Your task to perform on an android device: What's on the menu at Chipotle? Image 0: 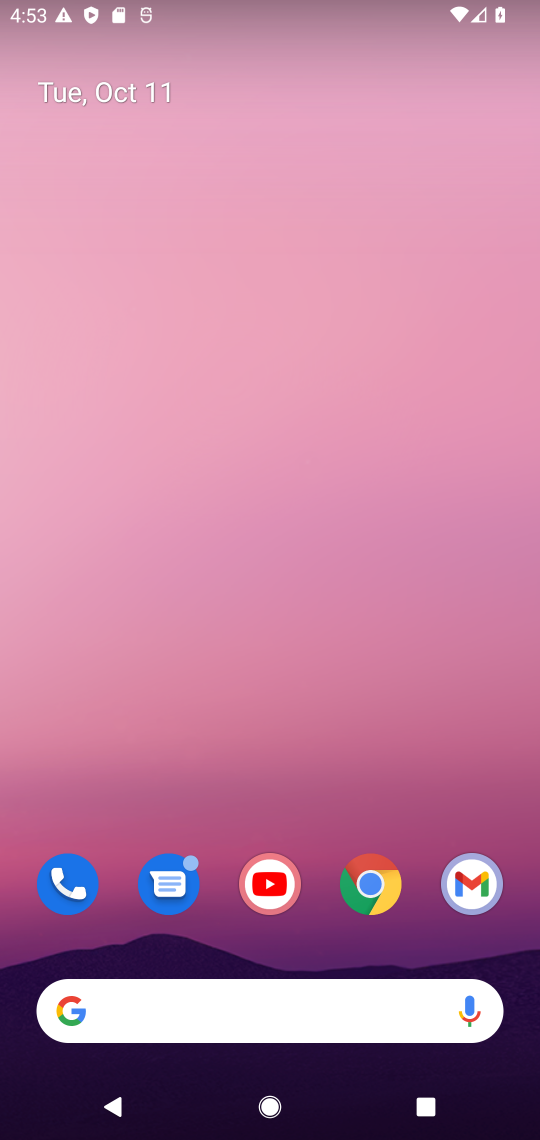
Step 0: drag from (286, 970) to (201, 70)
Your task to perform on an android device: What's on the menu at Chipotle? Image 1: 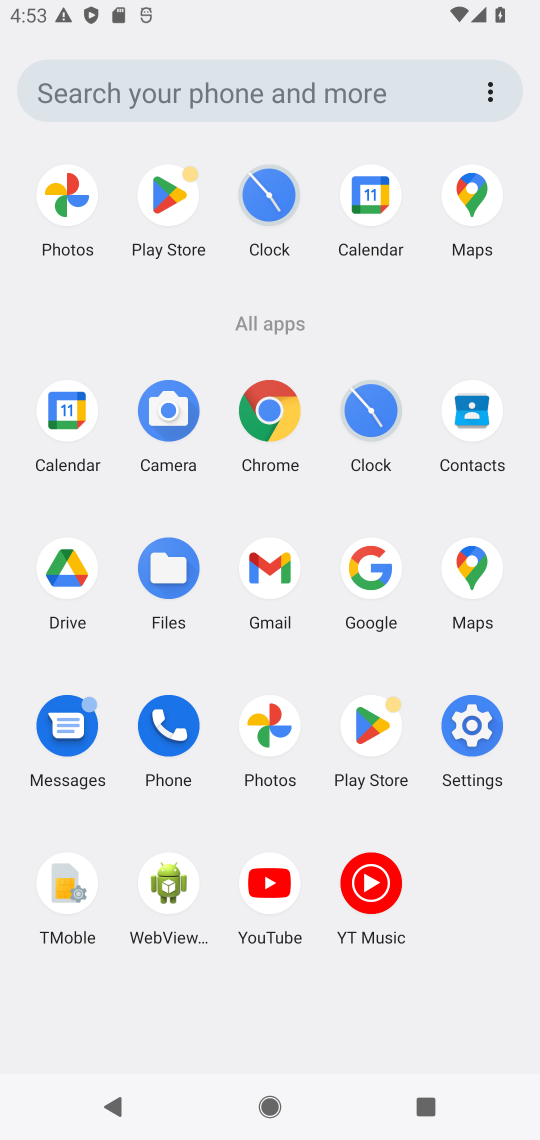
Step 1: click (270, 411)
Your task to perform on an android device: What's on the menu at Chipotle? Image 2: 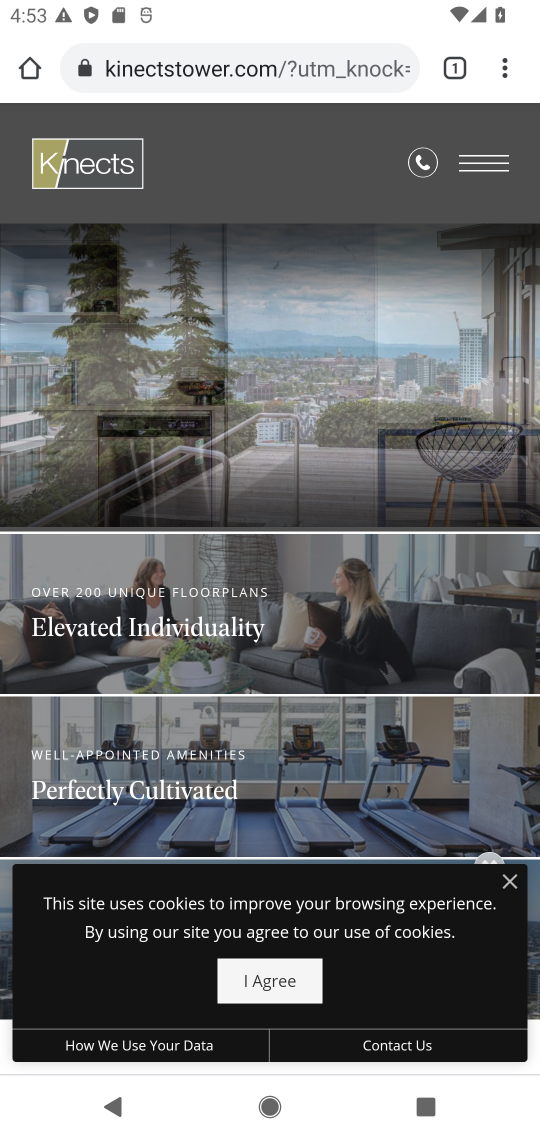
Step 2: drag from (502, 72) to (281, 139)
Your task to perform on an android device: What's on the menu at Chipotle? Image 3: 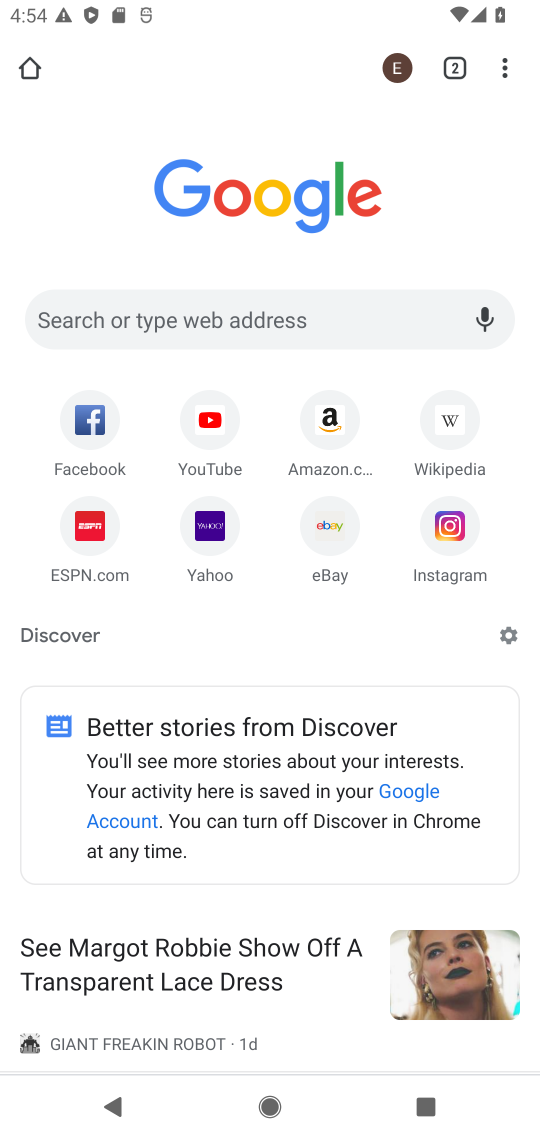
Step 3: click (343, 311)
Your task to perform on an android device: What's on the menu at Chipotle? Image 4: 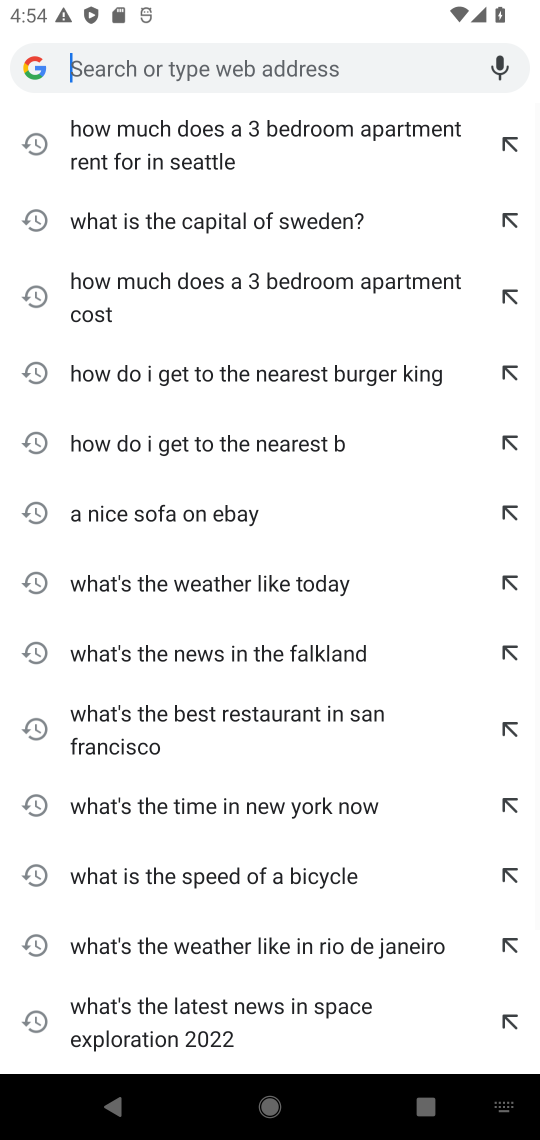
Step 4: type "What's on the menu at Chipotle?"
Your task to perform on an android device: What's on the menu at Chipotle? Image 5: 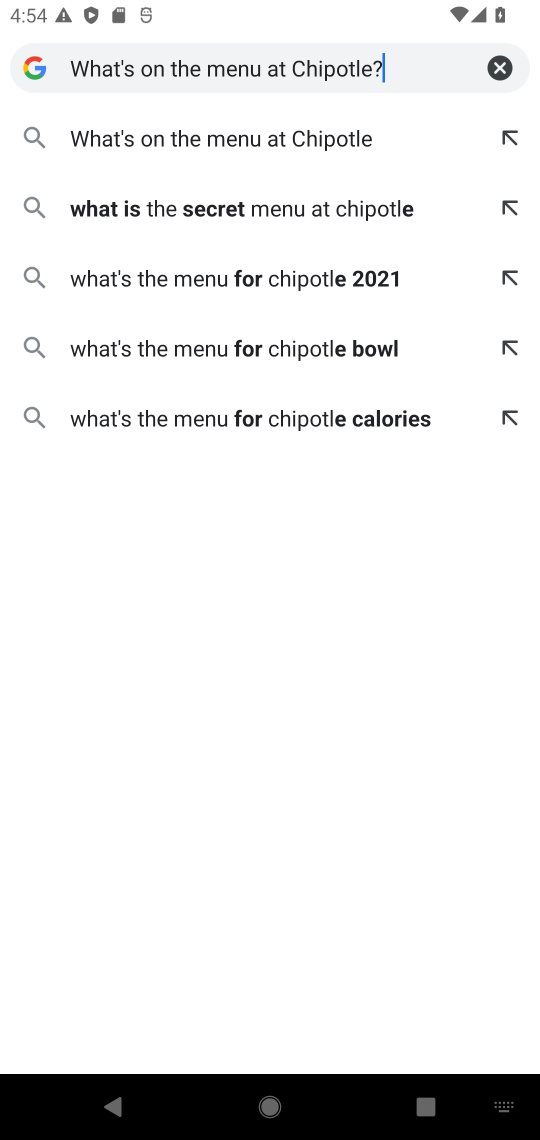
Step 5: type ""
Your task to perform on an android device: What's on the menu at Chipotle? Image 6: 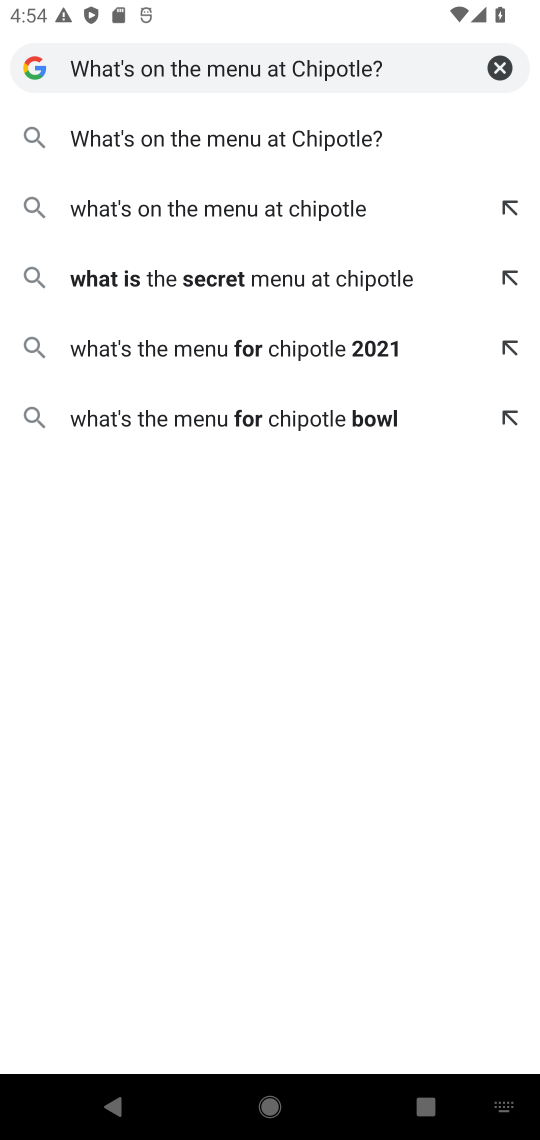
Step 6: click (241, 136)
Your task to perform on an android device: What's on the menu at Chipotle? Image 7: 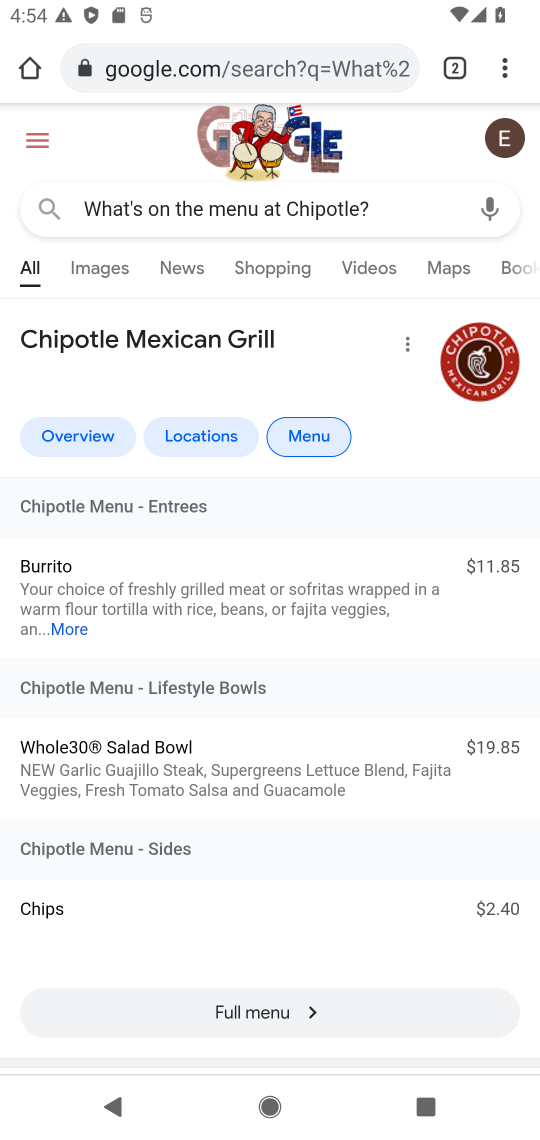
Step 7: task complete